Your task to perform on an android device: Turn off the flashlight Image 0: 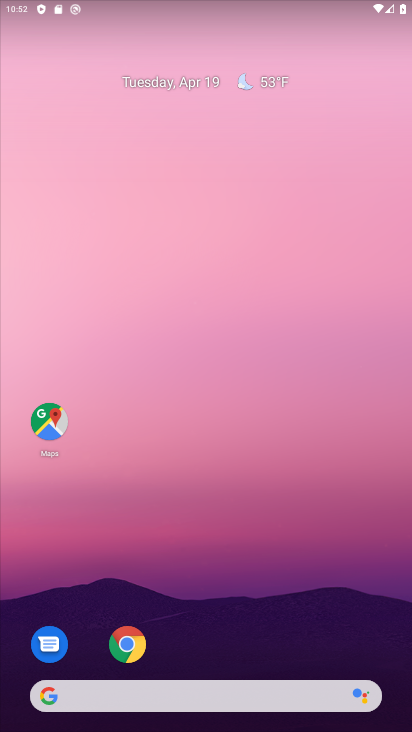
Step 0: drag from (181, 27) to (195, 360)
Your task to perform on an android device: Turn off the flashlight Image 1: 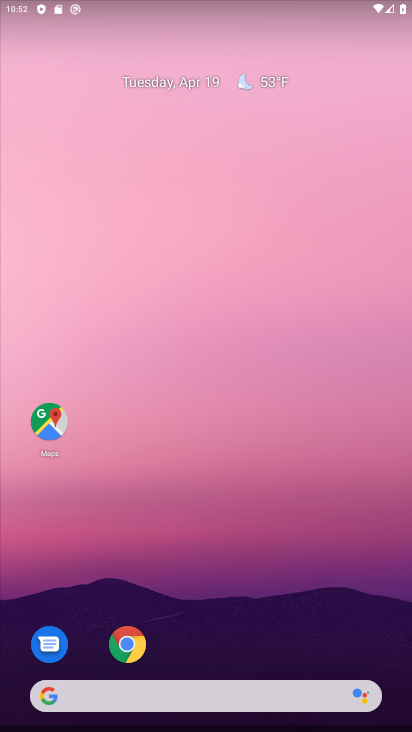
Step 1: task complete